Your task to perform on an android device: choose inbox layout in the gmail app Image 0: 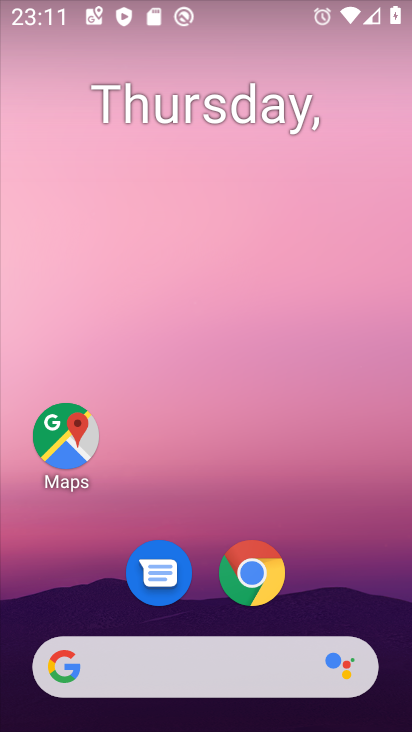
Step 0: drag from (313, 574) to (286, 225)
Your task to perform on an android device: choose inbox layout in the gmail app Image 1: 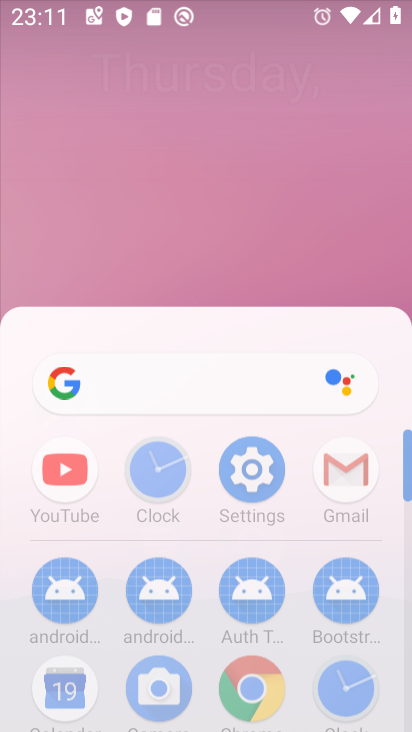
Step 1: click (270, 170)
Your task to perform on an android device: choose inbox layout in the gmail app Image 2: 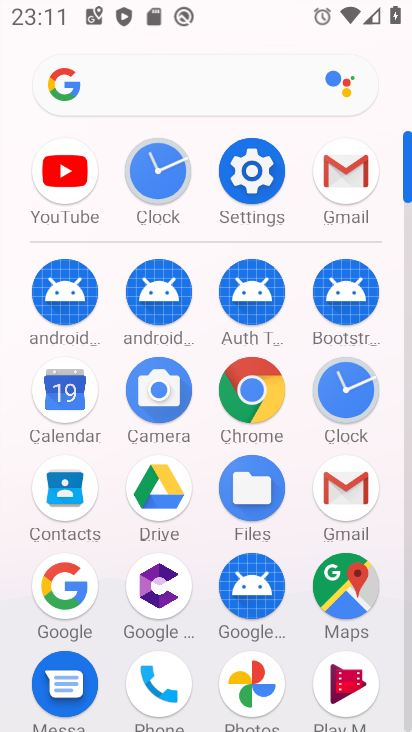
Step 2: click (361, 491)
Your task to perform on an android device: choose inbox layout in the gmail app Image 3: 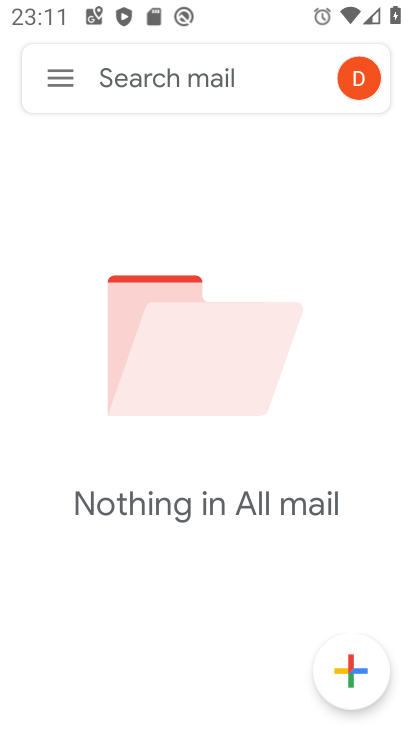
Step 3: click (49, 79)
Your task to perform on an android device: choose inbox layout in the gmail app Image 4: 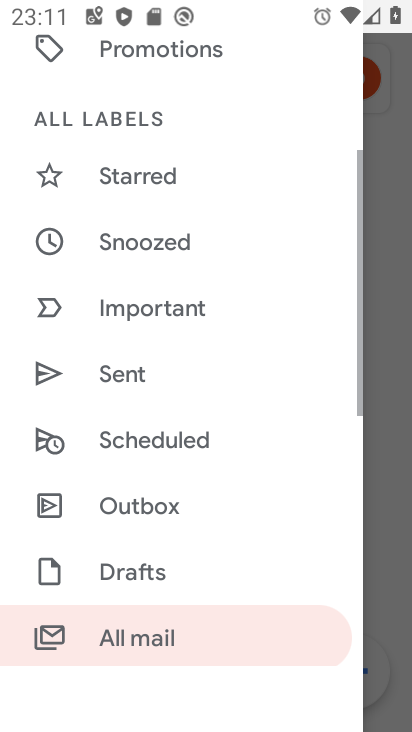
Step 4: drag from (152, 543) to (206, 181)
Your task to perform on an android device: choose inbox layout in the gmail app Image 5: 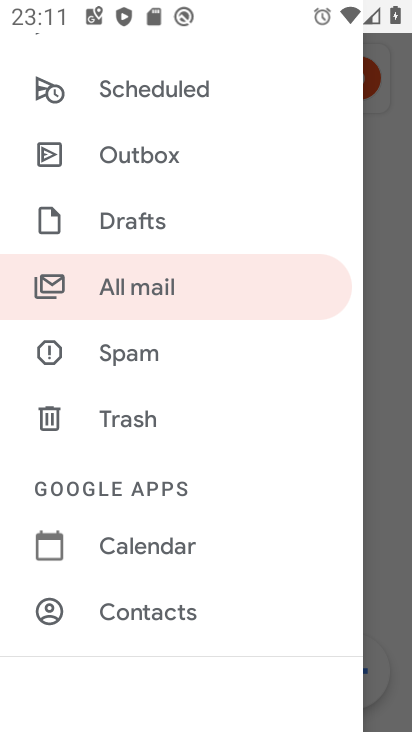
Step 5: drag from (170, 593) to (97, 175)
Your task to perform on an android device: choose inbox layout in the gmail app Image 6: 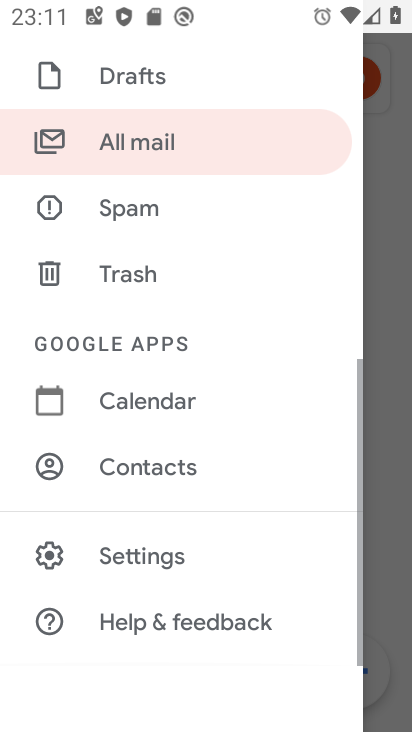
Step 6: click (129, 560)
Your task to perform on an android device: choose inbox layout in the gmail app Image 7: 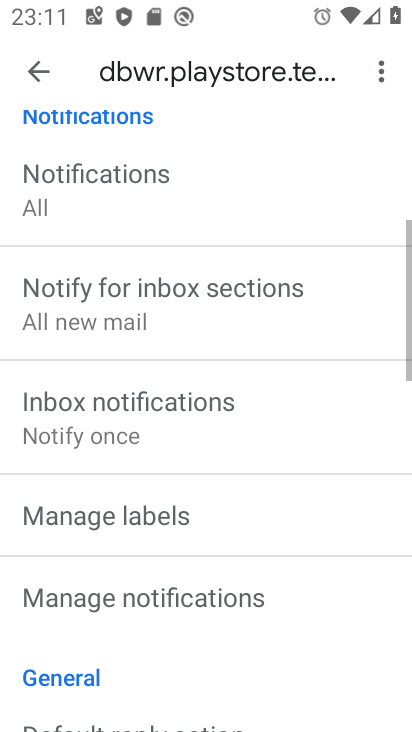
Step 7: drag from (211, 244) to (91, 720)
Your task to perform on an android device: choose inbox layout in the gmail app Image 8: 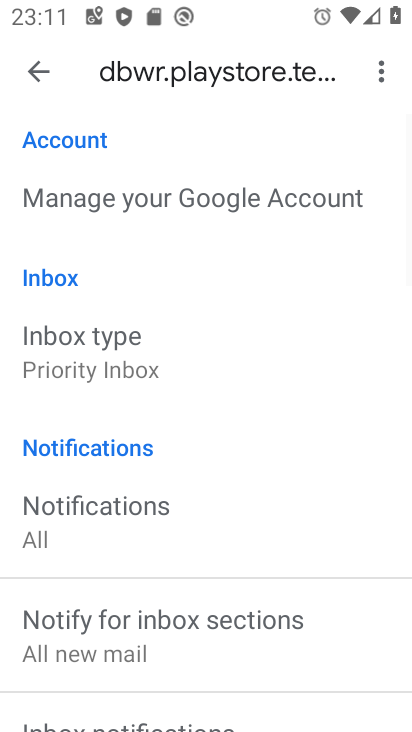
Step 8: click (146, 358)
Your task to perform on an android device: choose inbox layout in the gmail app Image 9: 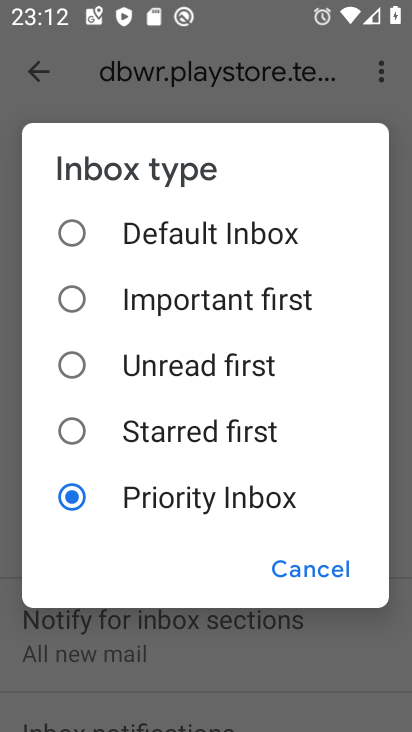
Step 9: task complete